Your task to perform on an android device: toggle wifi Image 0: 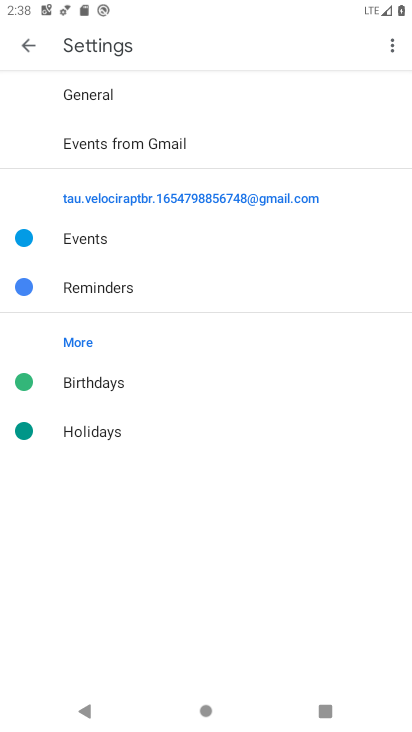
Step 0: press home button
Your task to perform on an android device: toggle wifi Image 1: 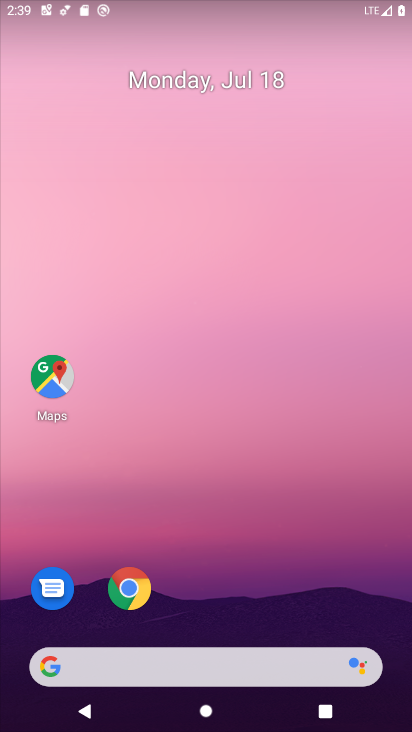
Step 1: drag from (379, 581) to (230, 4)
Your task to perform on an android device: toggle wifi Image 2: 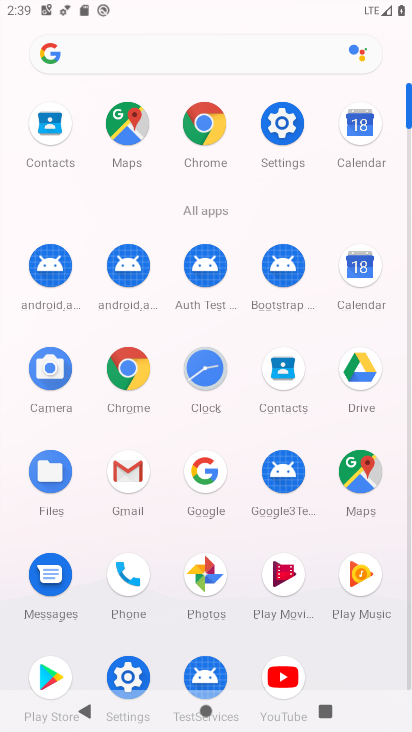
Step 2: click (285, 104)
Your task to perform on an android device: toggle wifi Image 3: 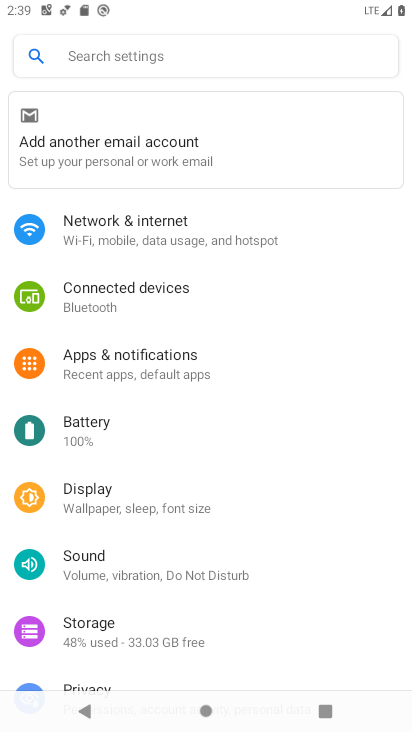
Step 3: click (229, 212)
Your task to perform on an android device: toggle wifi Image 4: 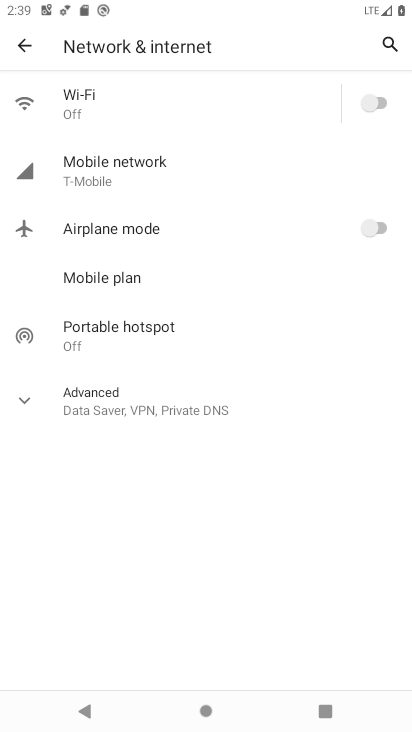
Step 4: click (379, 100)
Your task to perform on an android device: toggle wifi Image 5: 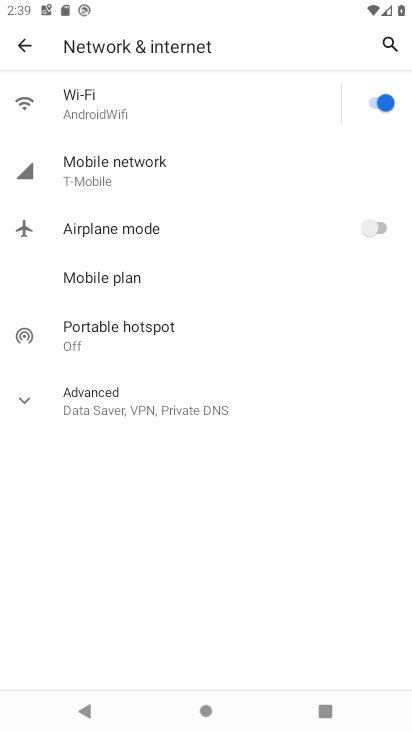
Step 5: task complete